Your task to perform on an android device: turn on priority inbox in the gmail app Image 0: 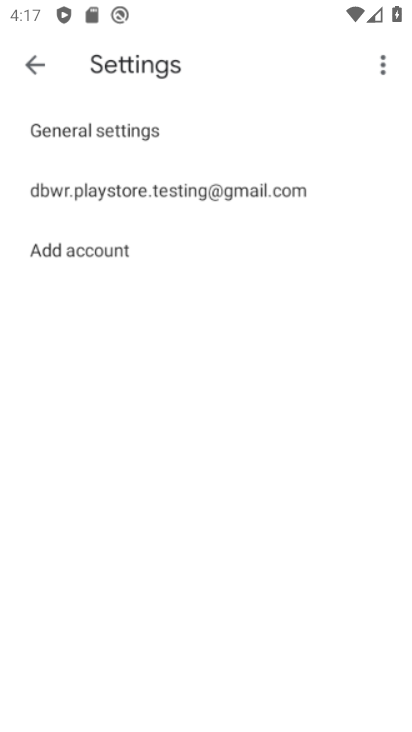
Step 0: press home button
Your task to perform on an android device: turn on priority inbox in the gmail app Image 1: 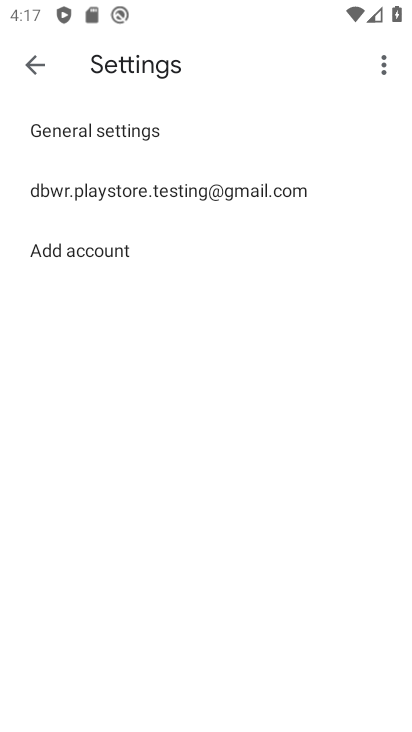
Step 1: click (225, 195)
Your task to perform on an android device: turn on priority inbox in the gmail app Image 2: 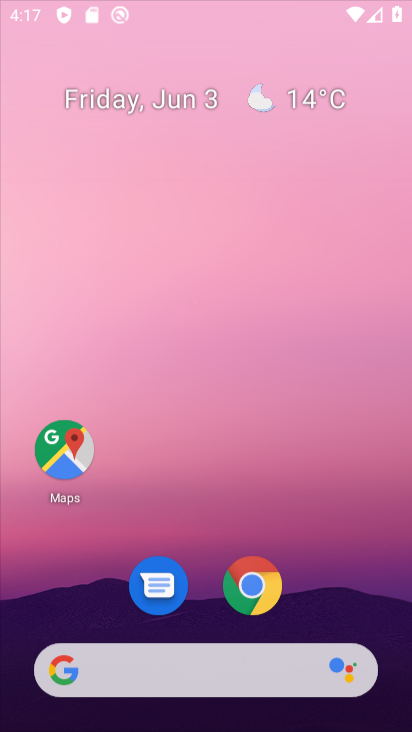
Step 2: click (164, 194)
Your task to perform on an android device: turn on priority inbox in the gmail app Image 3: 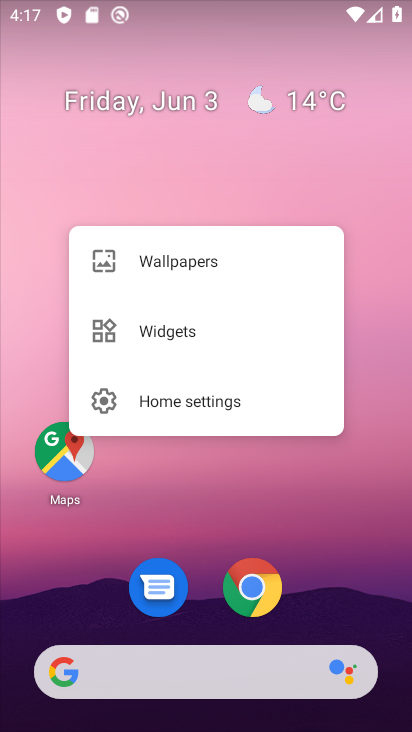
Step 3: click (200, 511)
Your task to perform on an android device: turn on priority inbox in the gmail app Image 4: 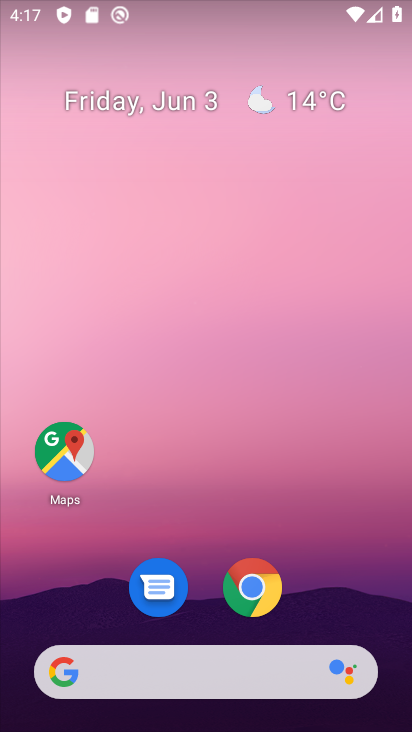
Step 4: drag from (231, 642) to (211, 261)
Your task to perform on an android device: turn on priority inbox in the gmail app Image 5: 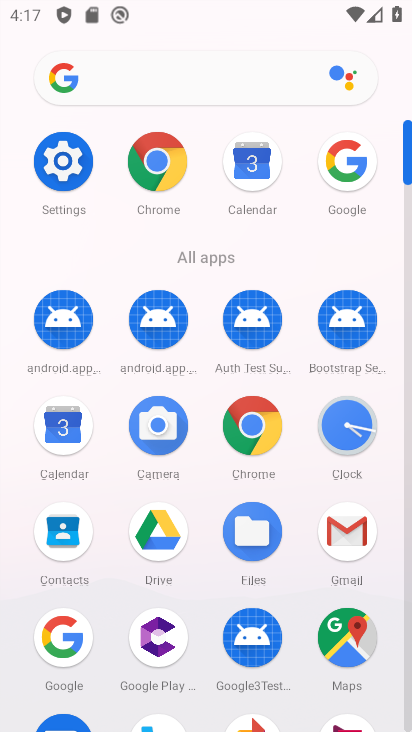
Step 5: click (336, 548)
Your task to perform on an android device: turn on priority inbox in the gmail app Image 6: 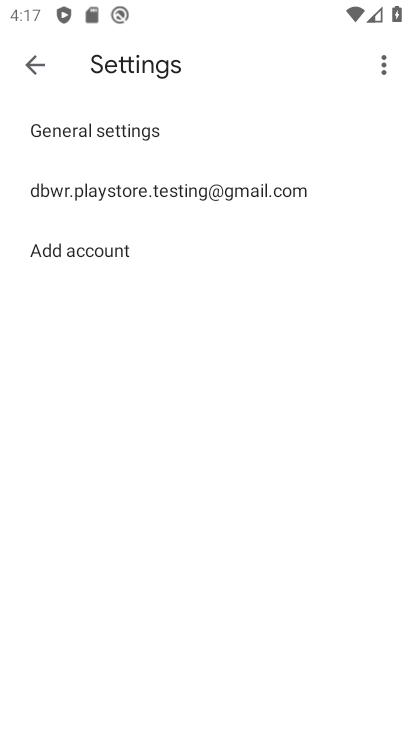
Step 6: click (134, 201)
Your task to perform on an android device: turn on priority inbox in the gmail app Image 7: 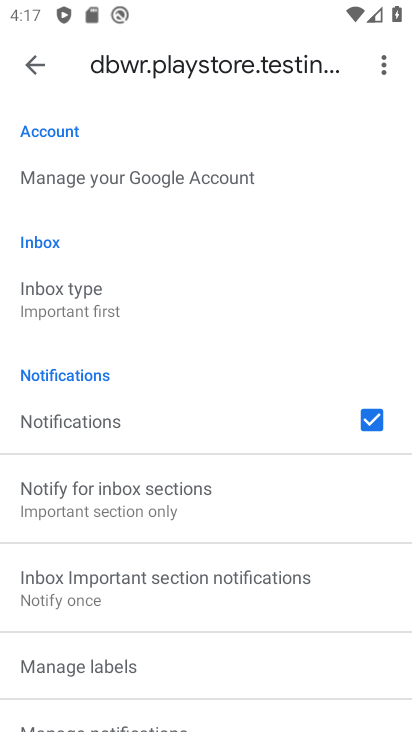
Step 7: click (106, 305)
Your task to perform on an android device: turn on priority inbox in the gmail app Image 8: 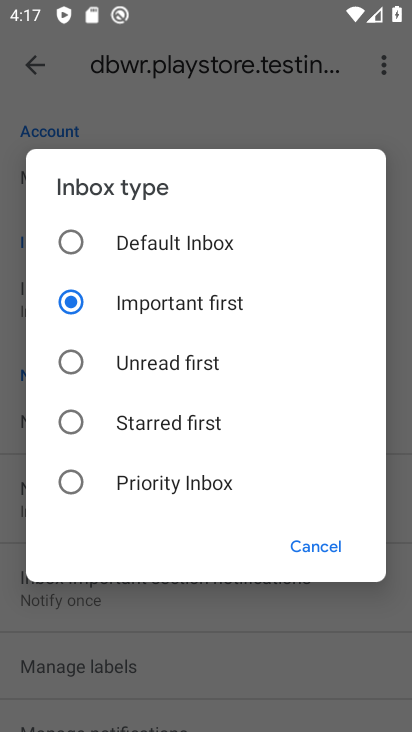
Step 8: click (142, 471)
Your task to perform on an android device: turn on priority inbox in the gmail app Image 9: 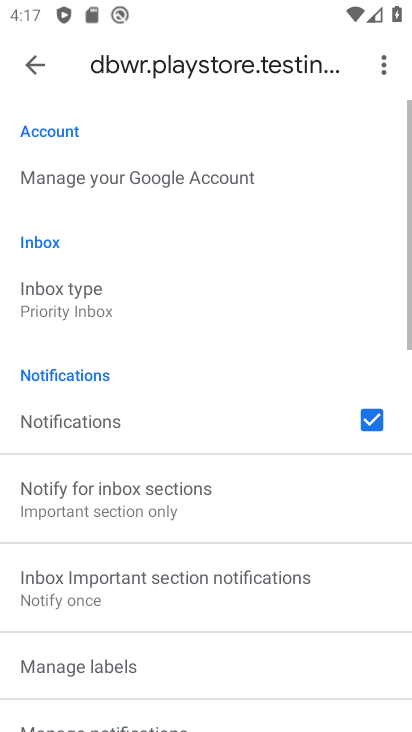
Step 9: task complete